Your task to perform on an android device: open a new tab in the chrome app Image 0: 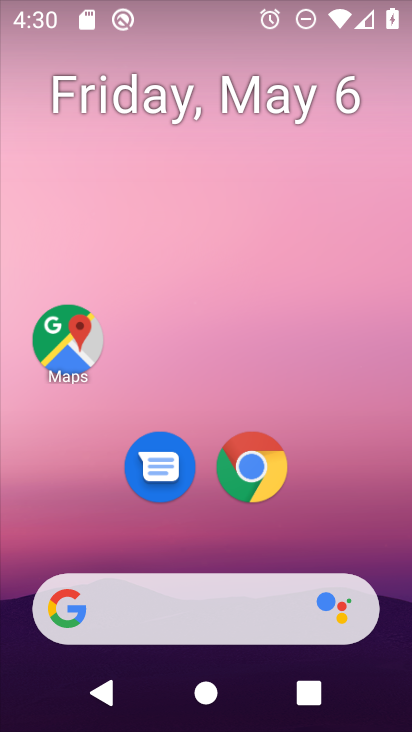
Step 0: click (260, 497)
Your task to perform on an android device: open a new tab in the chrome app Image 1: 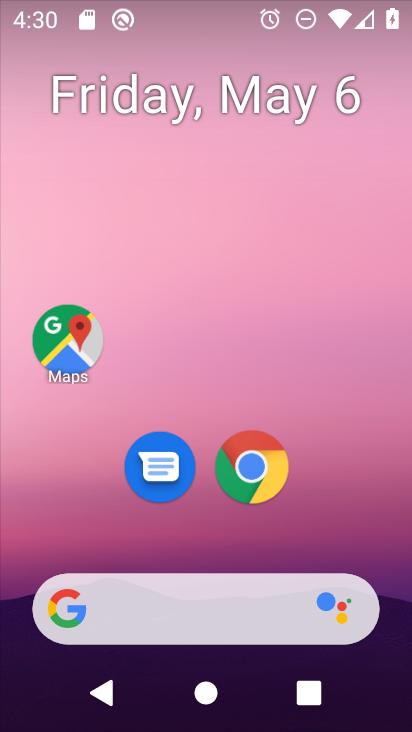
Step 1: click (260, 497)
Your task to perform on an android device: open a new tab in the chrome app Image 2: 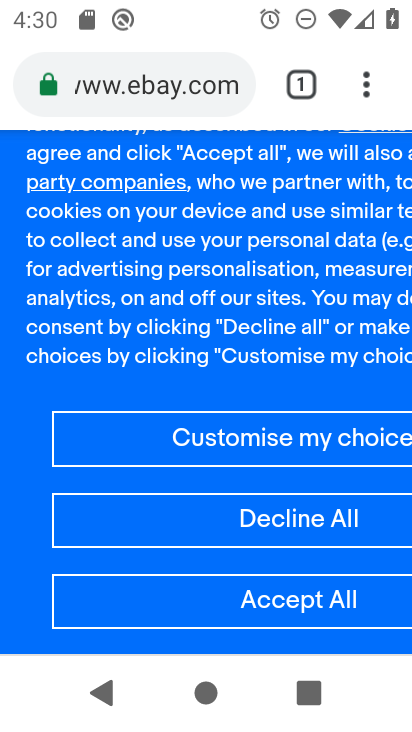
Step 2: click (296, 81)
Your task to perform on an android device: open a new tab in the chrome app Image 3: 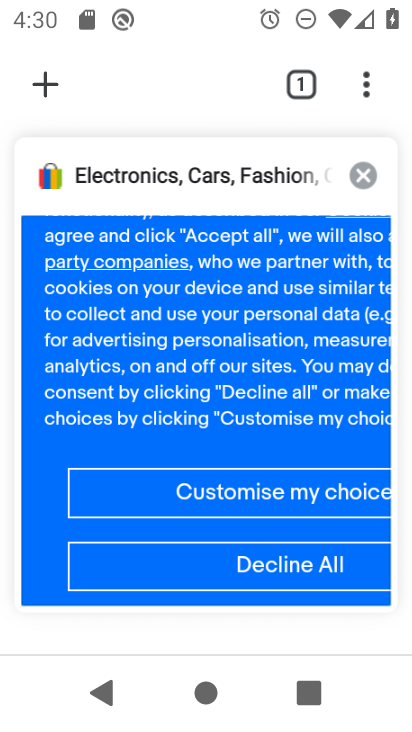
Step 3: click (54, 83)
Your task to perform on an android device: open a new tab in the chrome app Image 4: 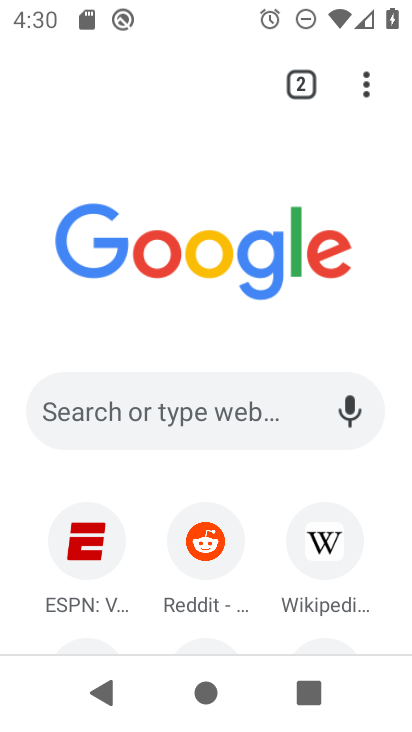
Step 4: task complete